Your task to perform on an android device: turn off improve location accuracy Image 0: 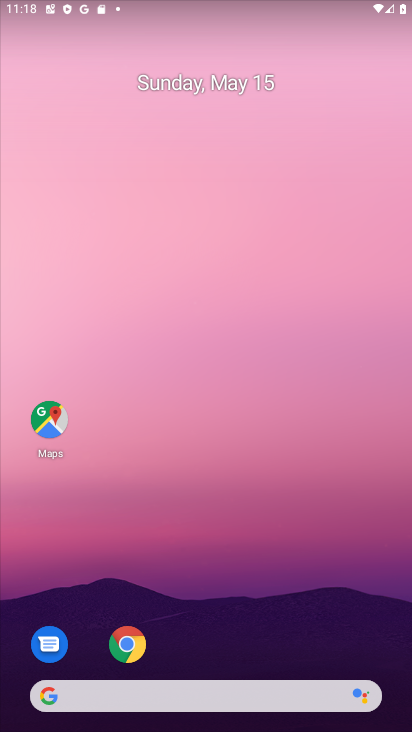
Step 0: drag from (226, 663) to (254, 282)
Your task to perform on an android device: turn off improve location accuracy Image 1: 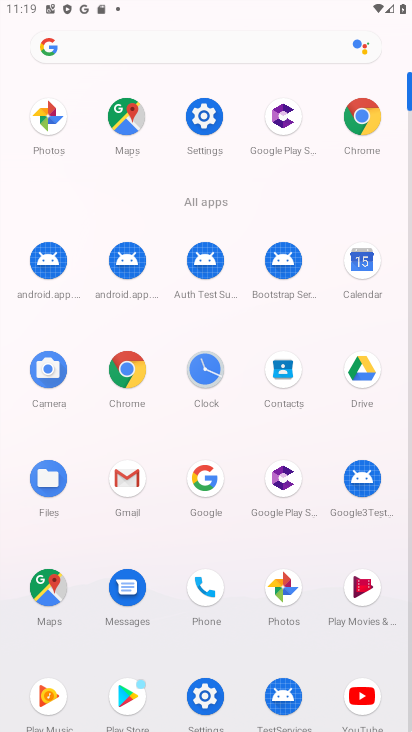
Step 1: click (196, 124)
Your task to perform on an android device: turn off improve location accuracy Image 2: 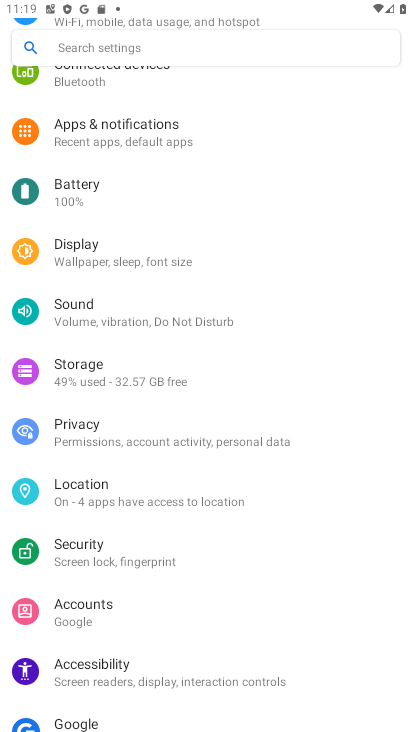
Step 2: drag from (217, 223) to (291, 450)
Your task to perform on an android device: turn off improve location accuracy Image 3: 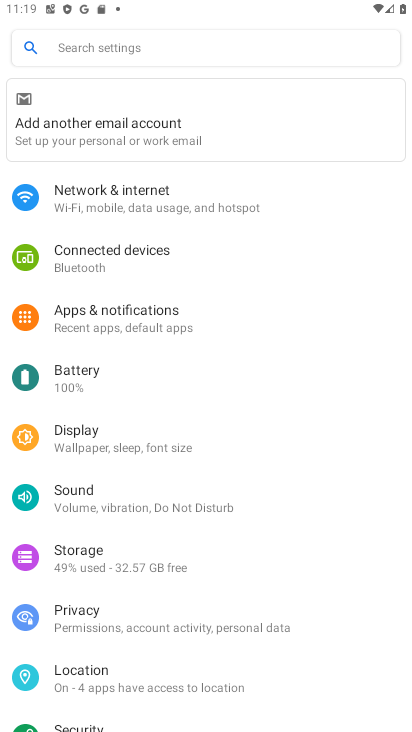
Step 3: drag from (254, 419) to (252, 258)
Your task to perform on an android device: turn off improve location accuracy Image 4: 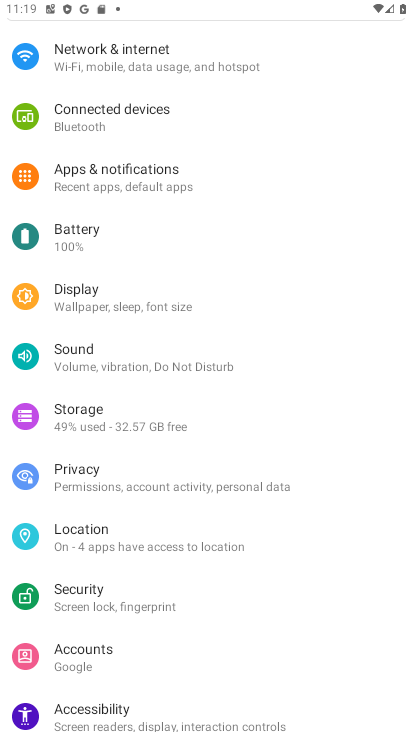
Step 4: click (106, 543)
Your task to perform on an android device: turn off improve location accuracy Image 5: 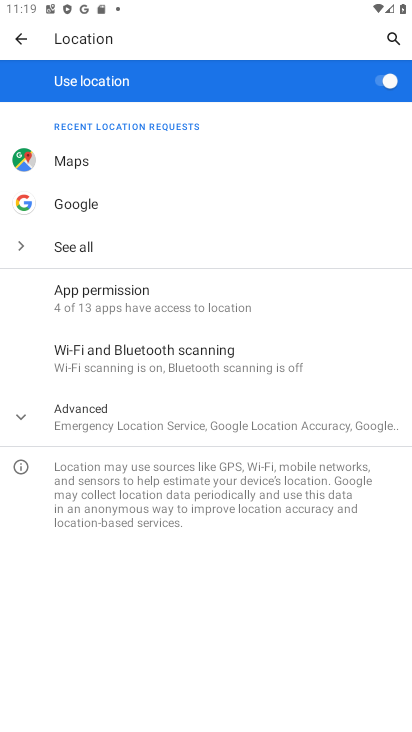
Step 5: click (106, 416)
Your task to perform on an android device: turn off improve location accuracy Image 6: 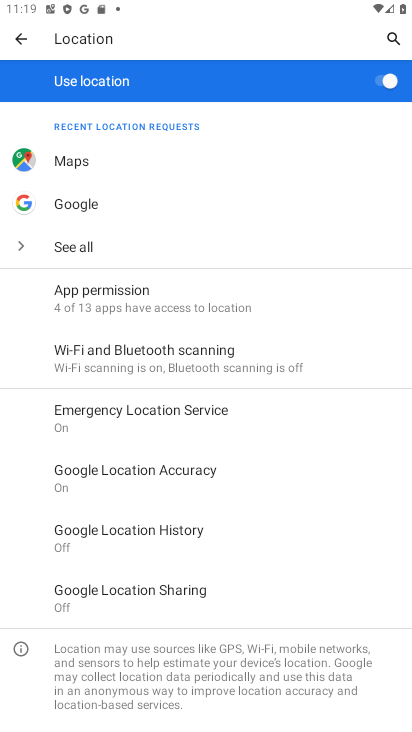
Step 6: click (193, 487)
Your task to perform on an android device: turn off improve location accuracy Image 7: 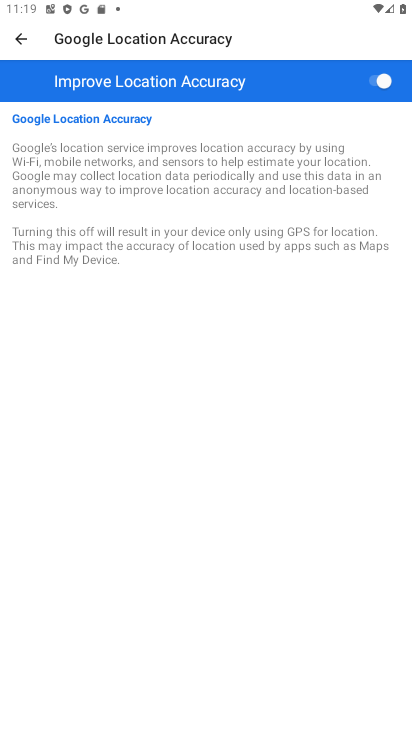
Step 7: click (374, 64)
Your task to perform on an android device: turn off improve location accuracy Image 8: 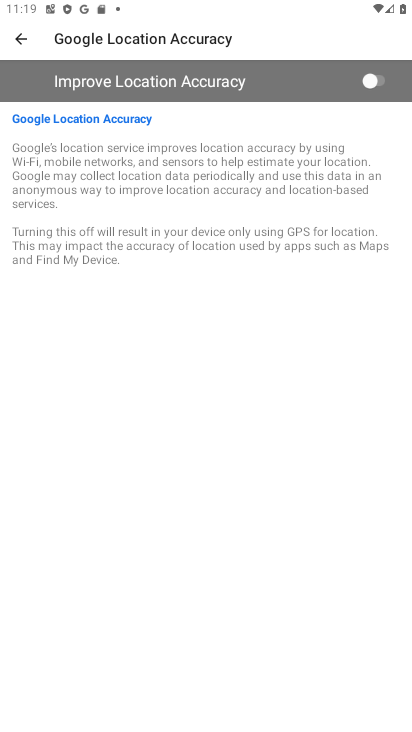
Step 8: task complete